Your task to perform on an android device: see tabs open on other devices in the chrome app Image 0: 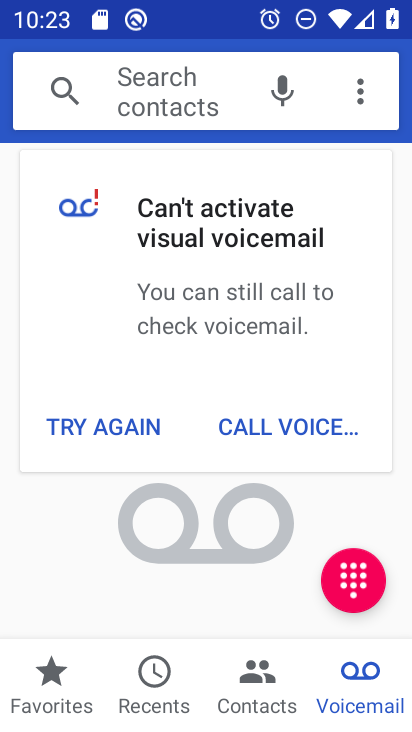
Step 0: press home button
Your task to perform on an android device: see tabs open on other devices in the chrome app Image 1: 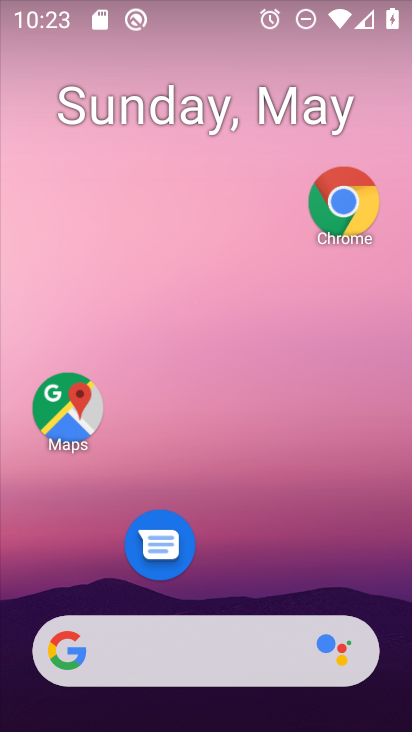
Step 1: click (342, 201)
Your task to perform on an android device: see tabs open on other devices in the chrome app Image 2: 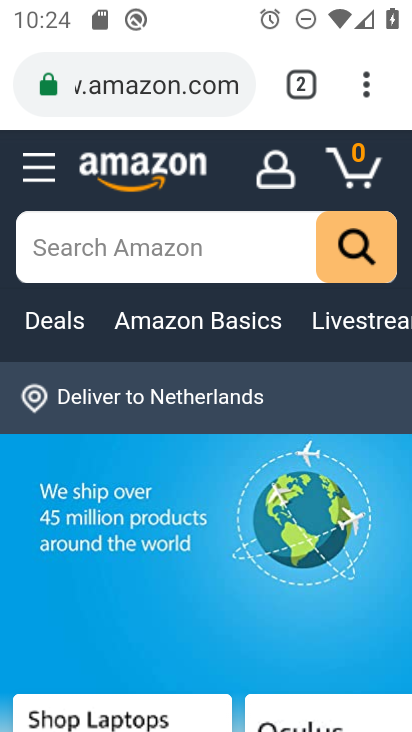
Step 2: click (377, 89)
Your task to perform on an android device: see tabs open on other devices in the chrome app Image 3: 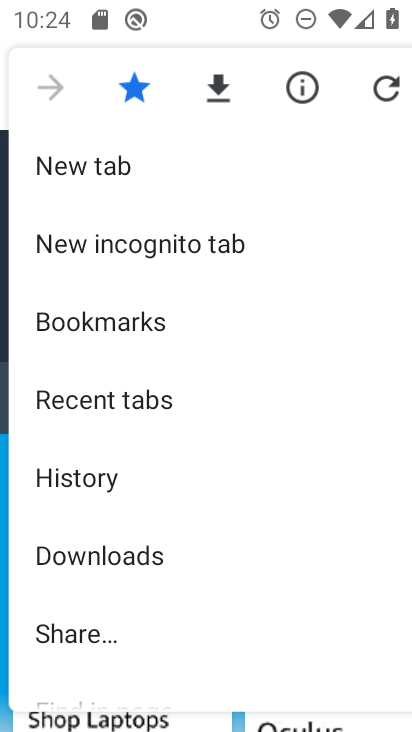
Step 3: click (116, 400)
Your task to perform on an android device: see tabs open on other devices in the chrome app Image 4: 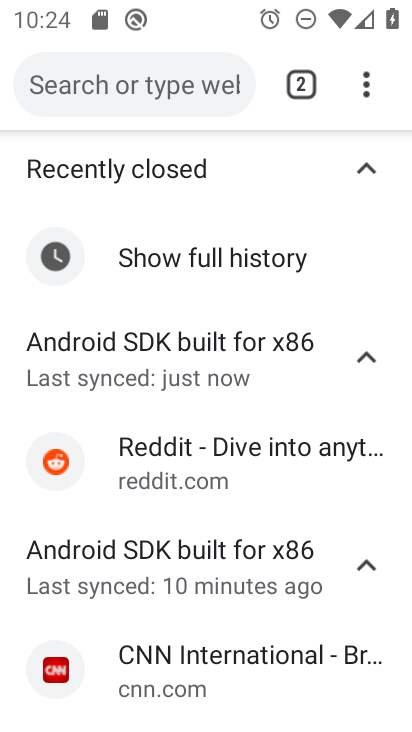
Step 4: task complete